Your task to perform on an android device: Show me popular games on the Play Store Image 0: 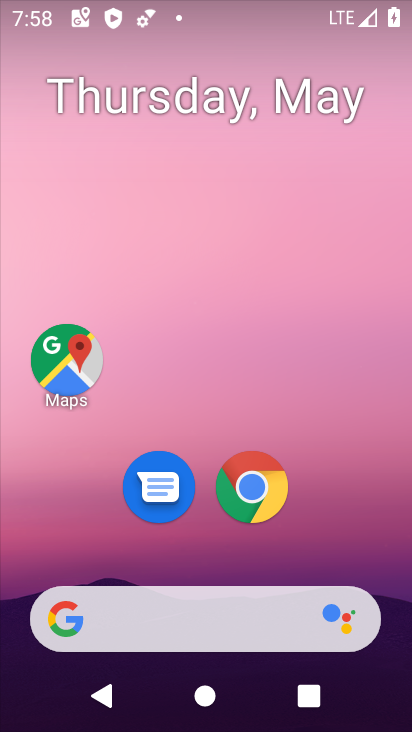
Step 0: drag from (311, 68) to (50, 58)
Your task to perform on an android device: Show me popular games on the Play Store Image 1: 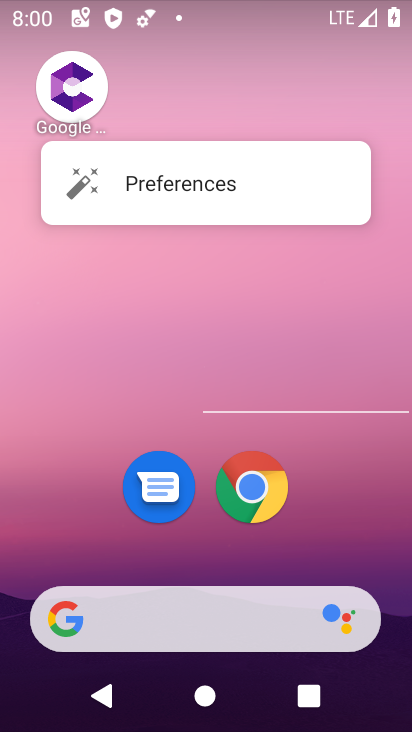
Step 1: drag from (200, 517) to (209, 110)
Your task to perform on an android device: Show me popular games on the Play Store Image 2: 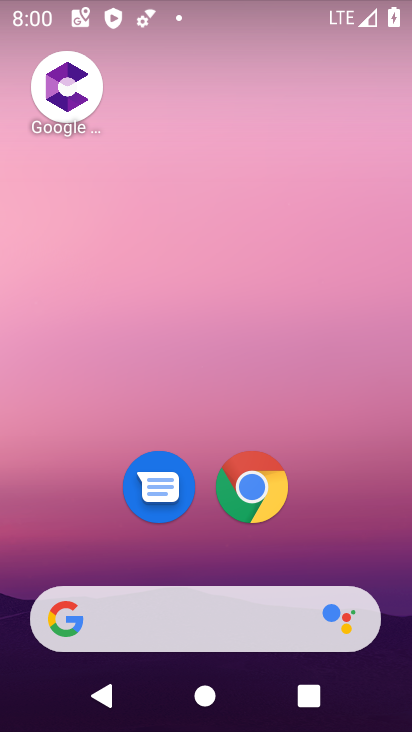
Step 2: drag from (192, 560) to (240, 78)
Your task to perform on an android device: Show me popular games on the Play Store Image 3: 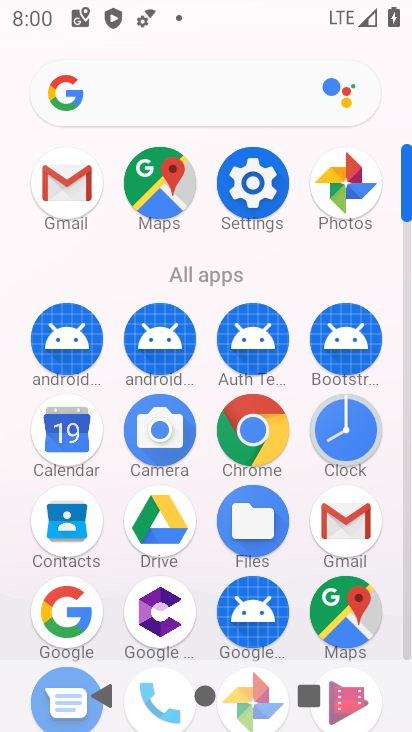
Step 3: drag from (206, 574) to (203, 152)
Your task to perform on an android device: Show me popular games on the Play Store Image 4: 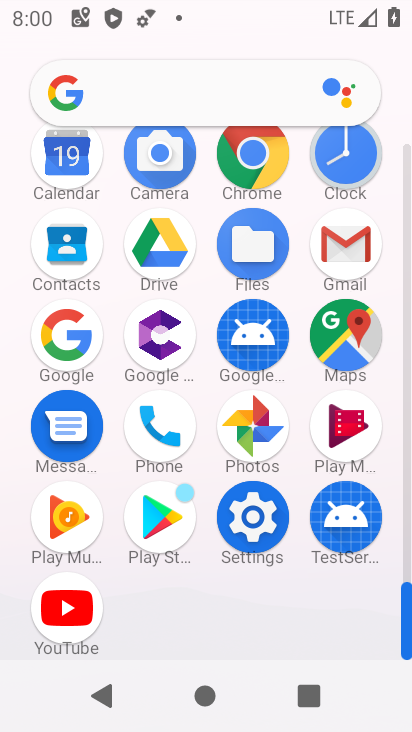
Step 4: click (174, 489)
Your task to perform on an android device: Show me popular games on the Play Store Image 5: 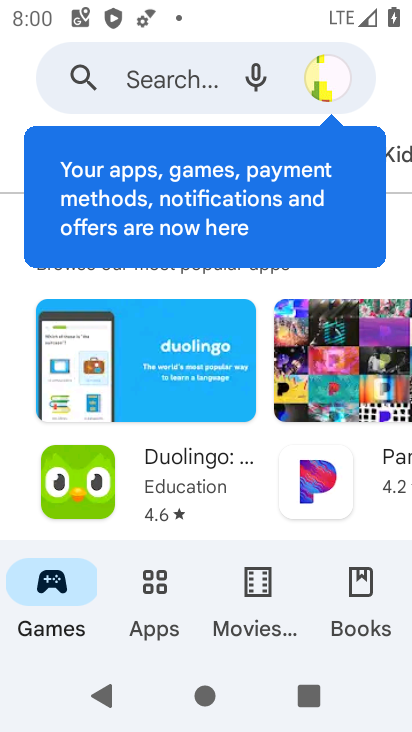
Step 5: drag from (227, 521) to (291, 105)
Your task to perform on an android device: Show me popular games on the Play Store Image 6: 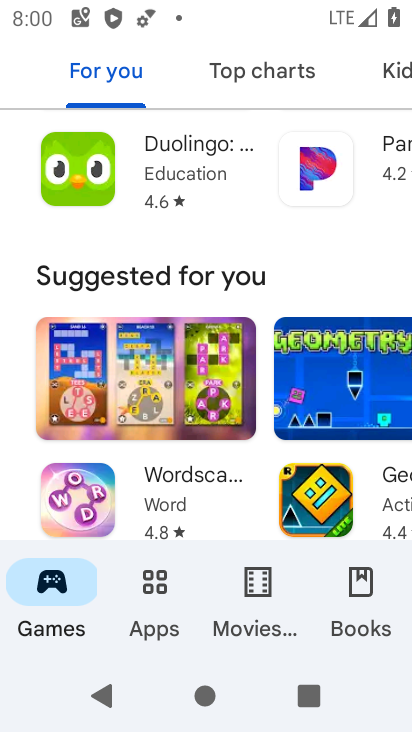
Step 6: drag from (255, 509) to (273, 266)
Your task to perform on an android device: Show me popular games on the Play Store Image 7: 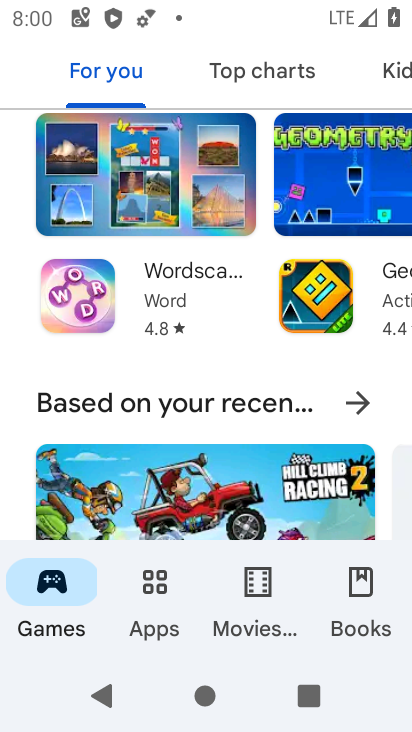
Step 7: drag from (252, 498) to (318, 721)
Your task to perform on an android device: Show me popular games on the Play Store Image 8: 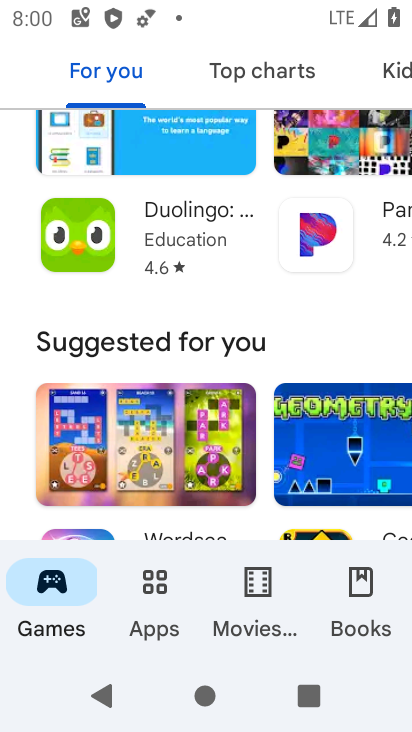
Step 8: drag from (282, 316) to (345, 725)
Your task to perform on an android device: Show me popular games on the Play Store Image 9: 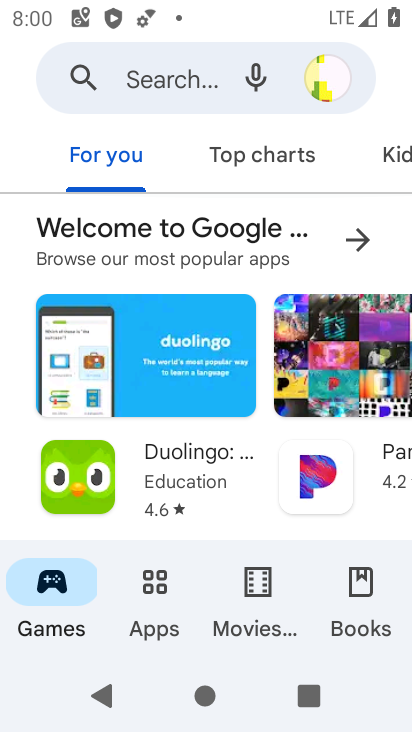
Step 9: drag from (282, 516) to (319, 18)
Your task to perform on an android device: Show me popular games on the Play Store Image 10: 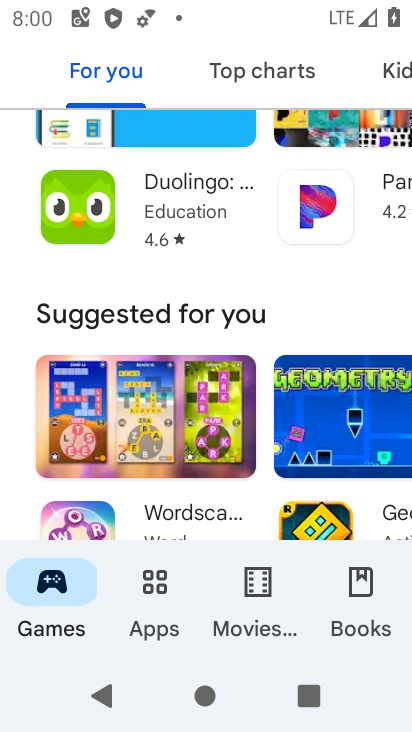
Step 10: drag from (262, 516) to (309, 28)
Your task to perform on an android device: Show me popular games on the Play Store Image 11: 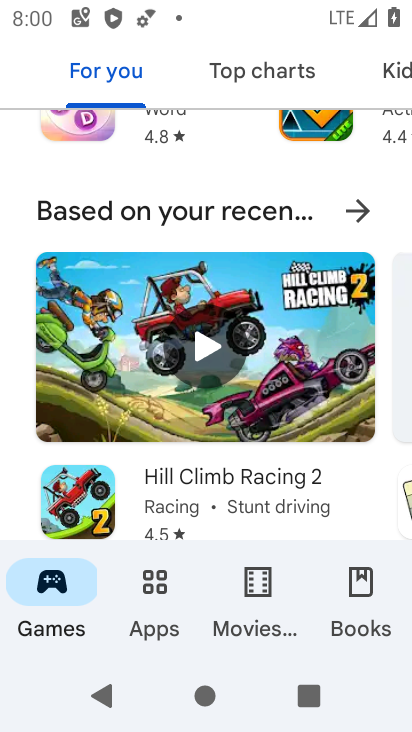
Step 11: drag from (257, 476) to (312, 102)
Your task to perform on an android device: Show me popular games on the Play Store Image 12: 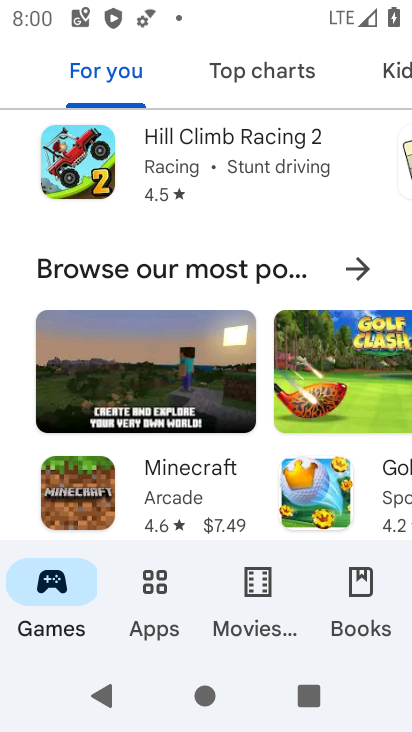
Step 12: click (353, 257)
Your task to perform on an android device: Show me popular games on the Play Store Image 13: 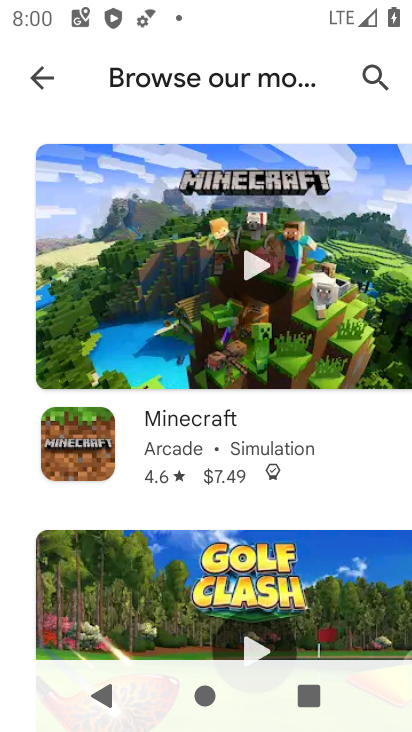
Step 13: task complete